Your task to perform on an android device: turn pop-ups off in chrome Image 0: 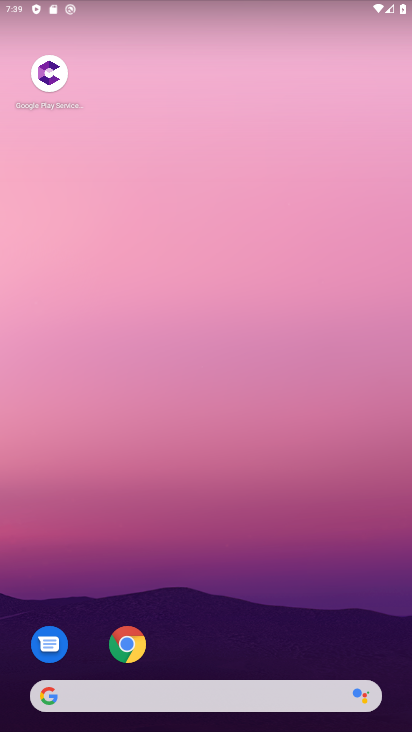
Step 0: drag from (269, 654) to (170, 145)
Your task to perform on an android device: turn pop-ups off in chrome Image 1: 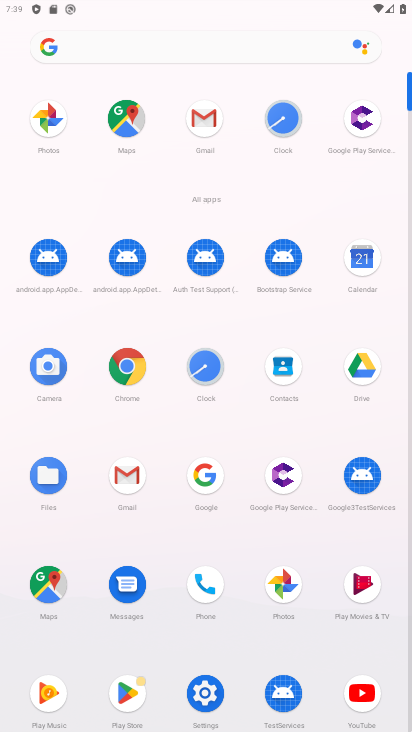
Step 1: click (124, 363)
Your task to perform on an android device: turn pop-ups off in chrome Image 2: 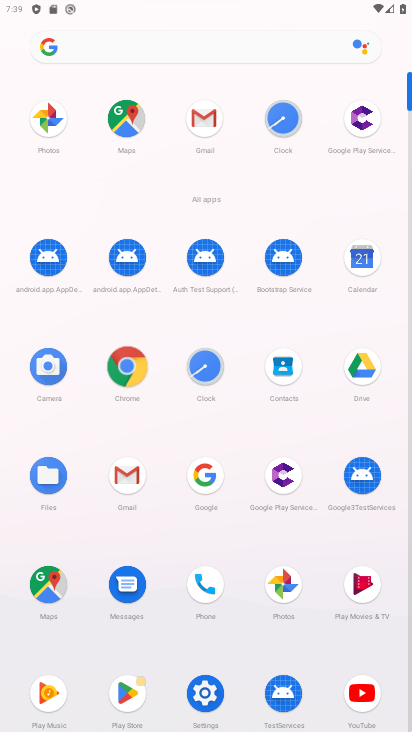
Step 2: click (125, 361)
Your task to perform on an android device: turn pop-ups off in chrome Image 3: 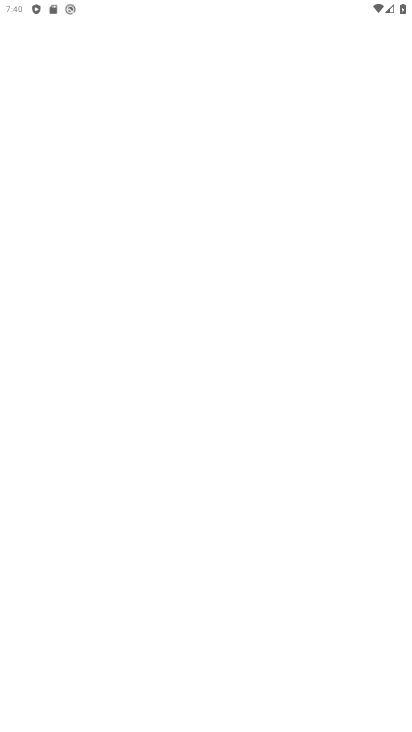
Step 3: click (132, 365)
Your task to perform on an android device: turn pop-ups off in chrome Image 4: 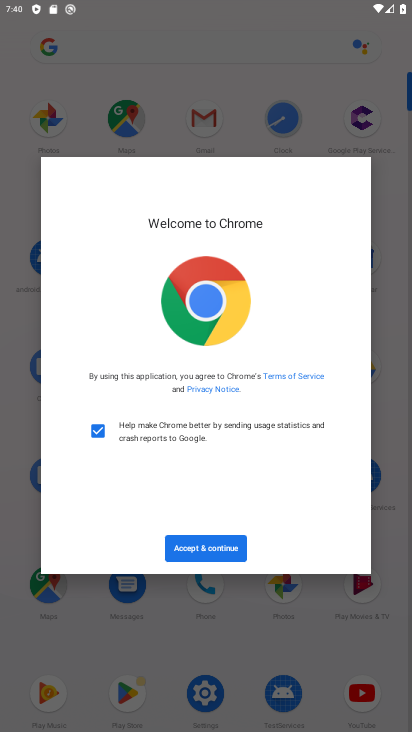
Step 4: click (206, 543)
Your task to perform on an android device: turn pop-ups off in chrome Image 5: 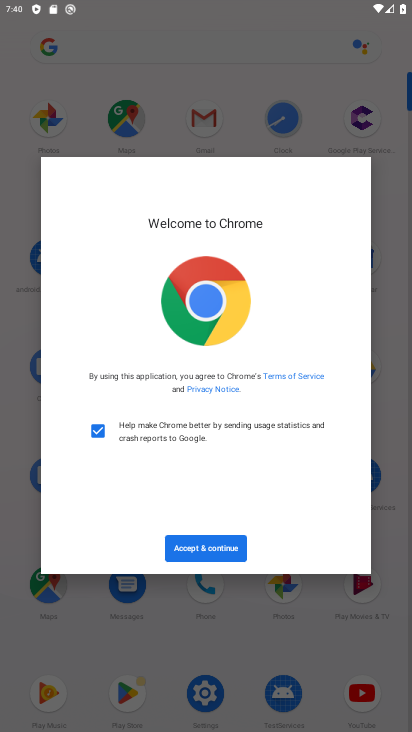
Step 5: click (218, 552)
Your task to perform on an android device: turn pop-ups off in chrome Image 6: 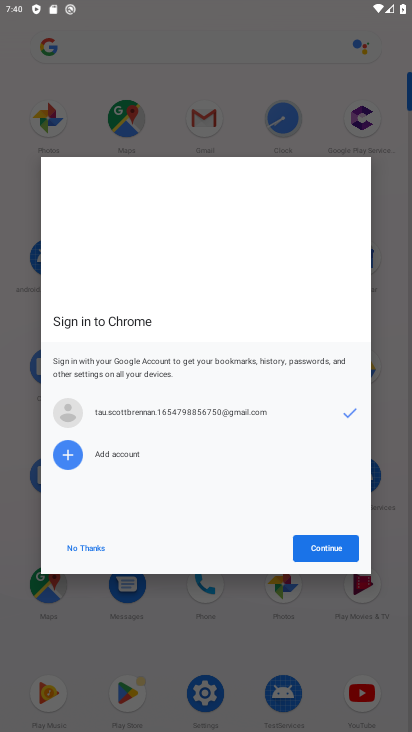
Step 6: click (221, 552)
Your task to perform on an android device: turn pop-ups off in chrome Image 7: 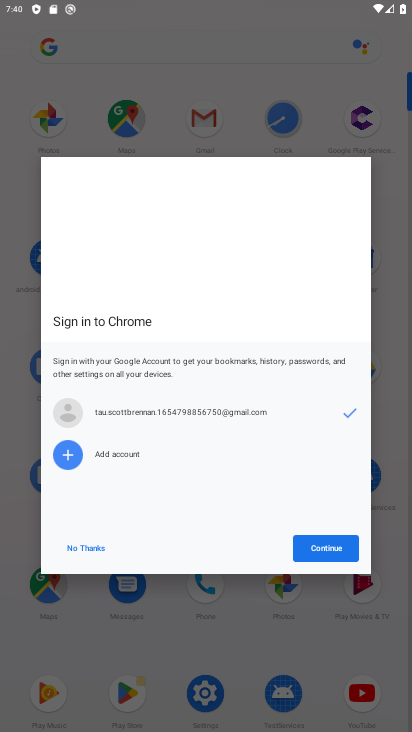
Step 7: click (221, 552)
Your task to perform on an android device: turn pop-ups off in chrome Image 8: 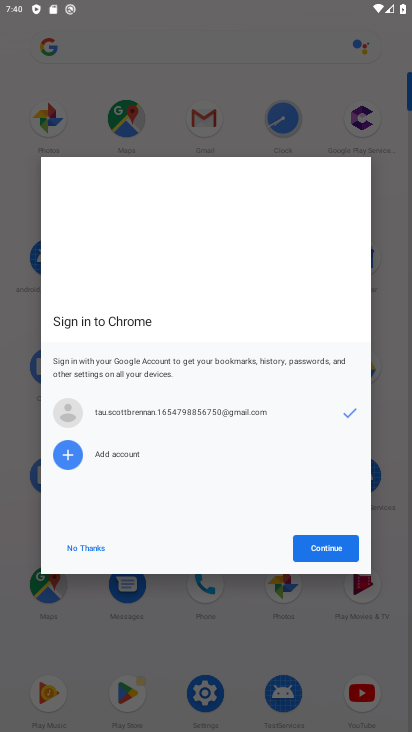
Step 8: click (86, 550)
Your task to perform on an android device: turn pop-ups off in chrome Image 9: 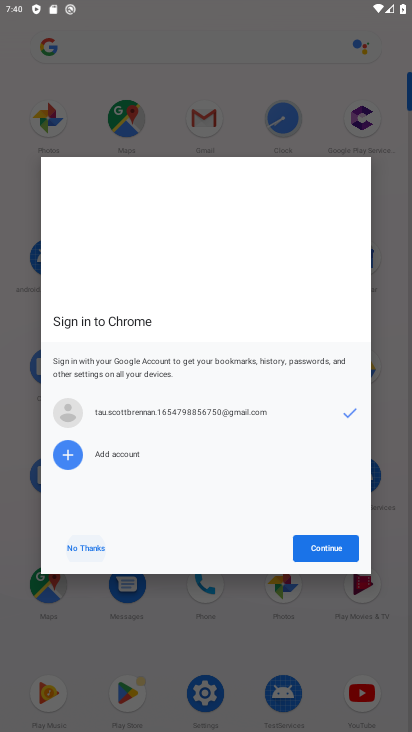
Step 9: click (83, 550)
Your task to perform on an android device: turn pop-ups off in chrome Image 10: 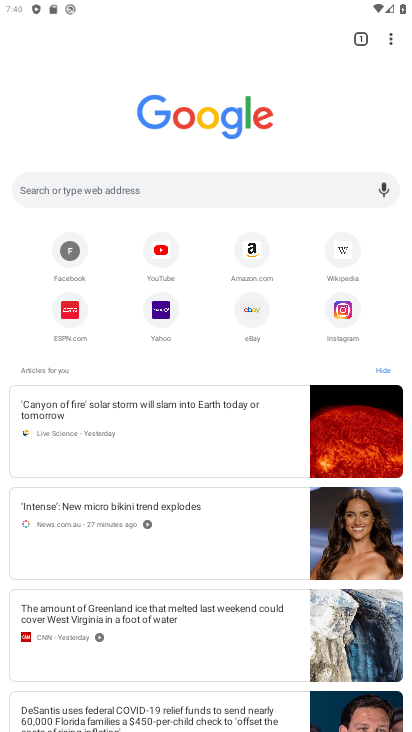
Step 10: drag from (386, 38) to (234, 326)
Your task to perform on an android device: turn pop-ups off in chrome Image 11: 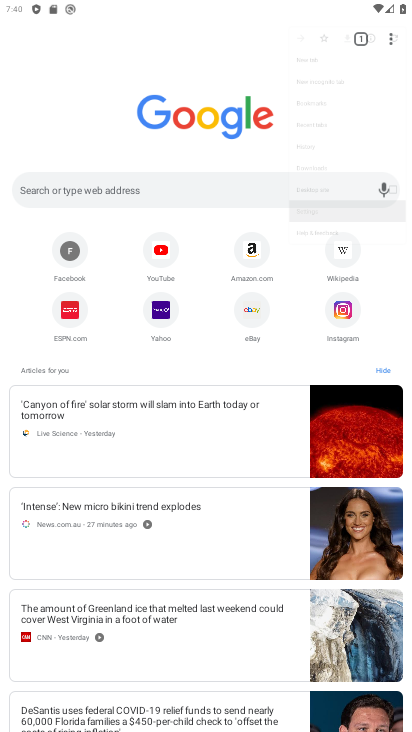
Step 11: click (236, 326)
Your task to perform on an android device: turn pop-ups off in chrome Image 12: 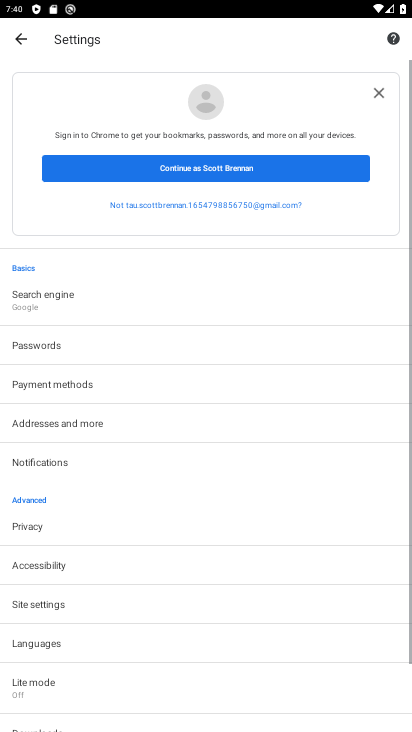
Step 12: drag from (141, 607) to (131, 188)
Your task to perform on an android device: turn pop-ups off in chrome Image 13: 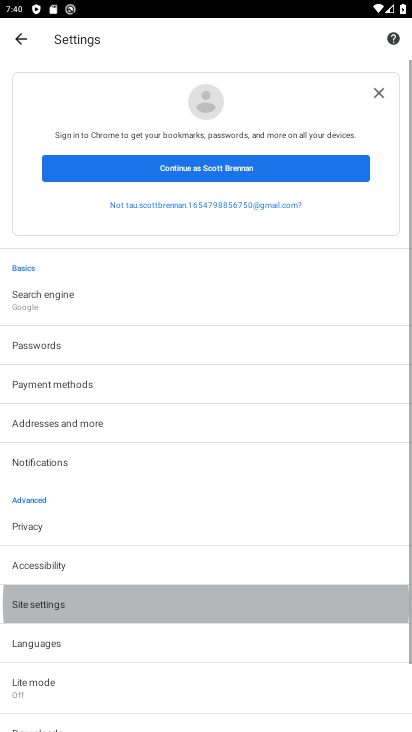
Step 13: drag from (48, 522) to (80, 239)
Your task to perform on an android device: turn pop-ups off in chrome Image 14: 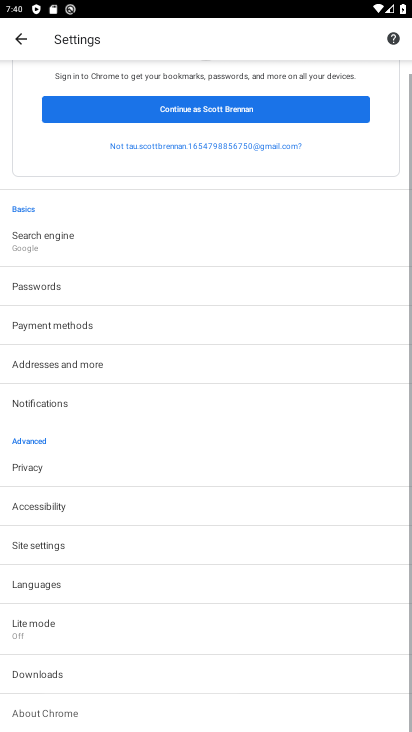
Step 14: drag from (90, 406) to (90, 229)
Your task to perform on an android device: turn pop-ups off in chrome Image 15: 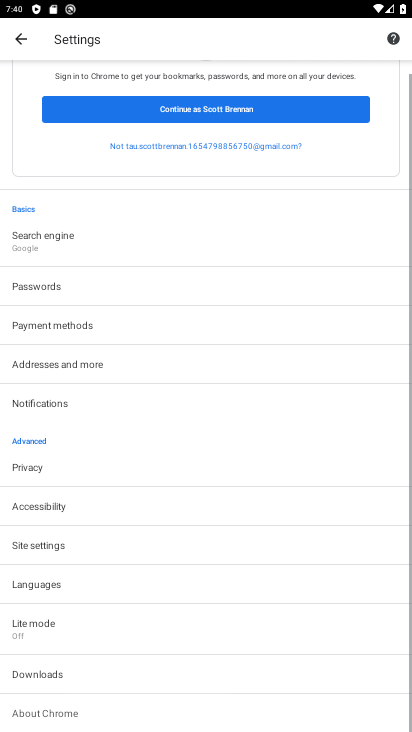
Step 15: drag from (84, 550) to (112, 250)
Your task to perform on an android device: turn pop-ups off in chrome Image 16: 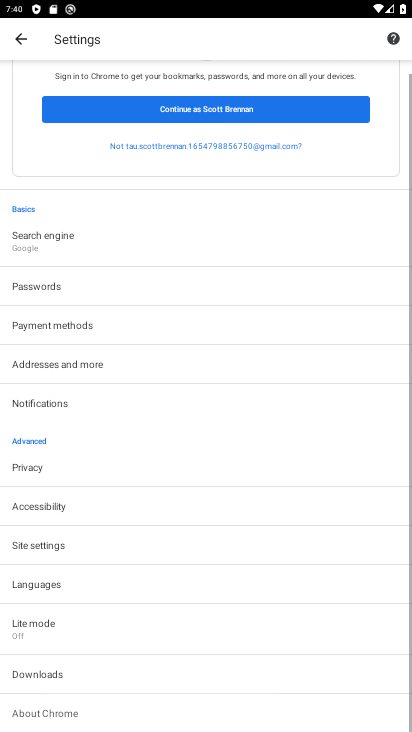
Step 16: drag from (123, 538) to (132, 269)
Your task to perform on an android device: turn pop-ups off in chrome Image 17: 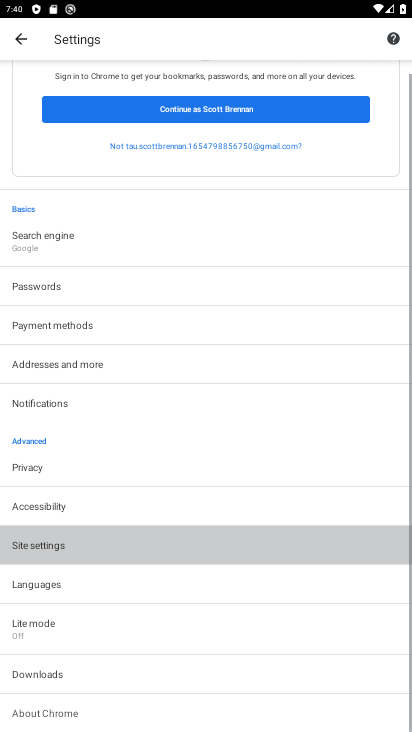
Step 17: drag from (82, 507) to (82, 268)
Your task to perform on an android device: turn pop-ups off in chrome Image 18: 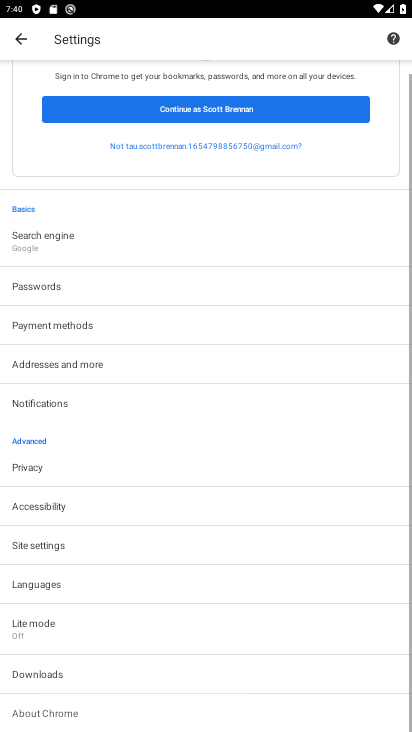
Step 18: drag from (74, 585) to (74, 304)
Your task to perform on an android device: turn pop-ups off in chrome Image 19: 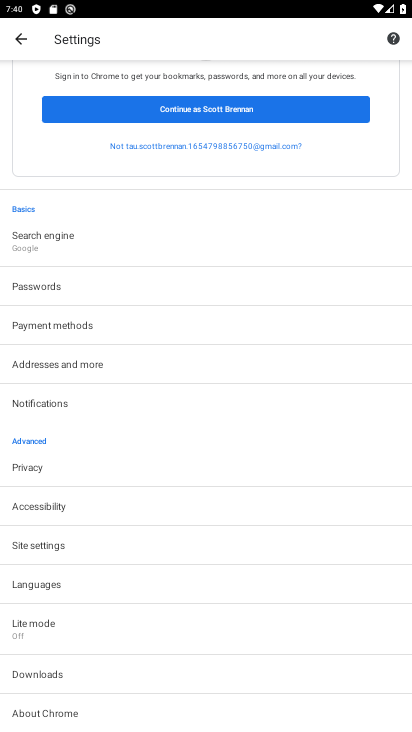
Step 19: click (33, 544)
Your task to perform on an android device: turn pop-ups off in chrome Image 20: 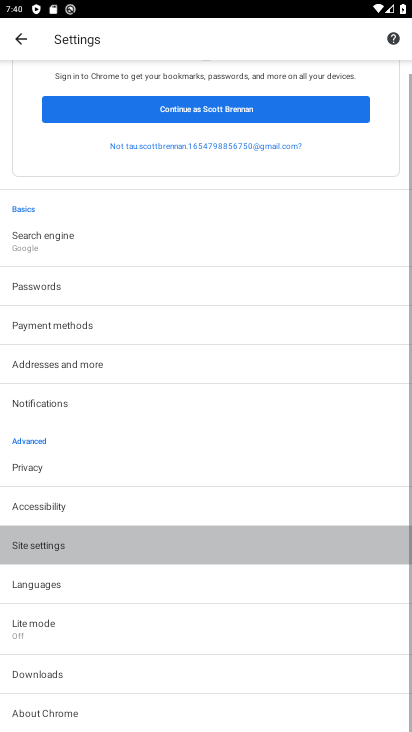
Step 20: click (34, 544)
Your task to perform on an android device: turn pop-ups off in chrome Image 21: 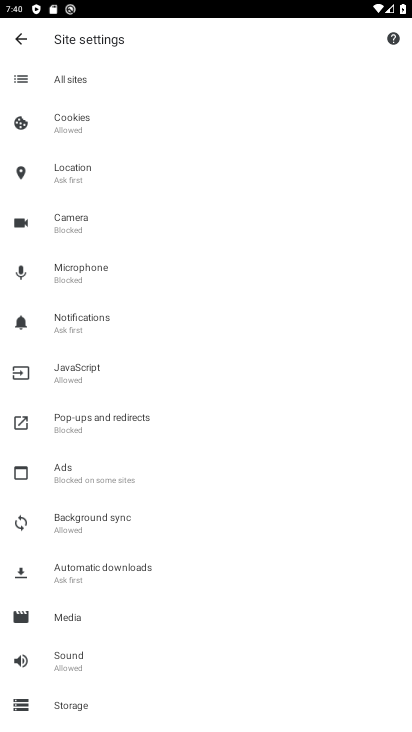
Step 21: click (78, 414)
Your task to perform on an android device: turn pop-ups off in chrome Image 22: 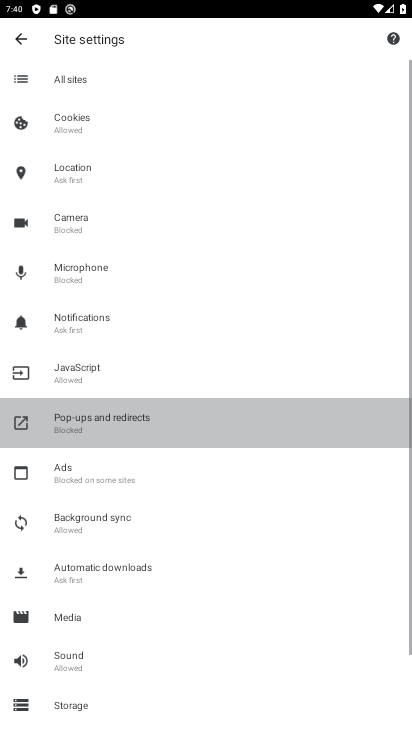
Step 22: click (80, 421)
Your task to perform on an android device: turn pop-ups off in chrome Image 23: 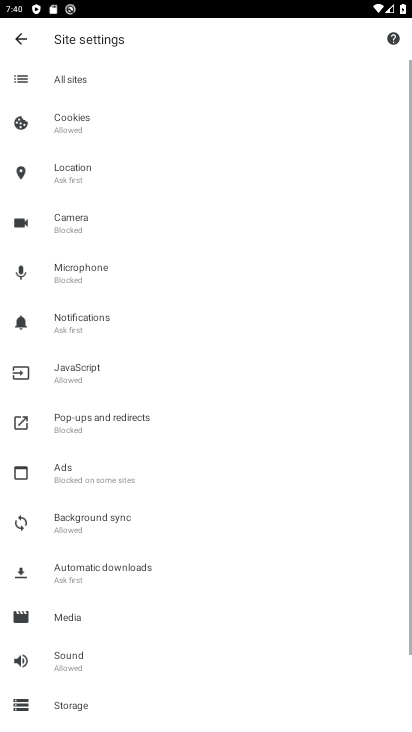
Step 23: click (81, 423)
Your task to perform on an android device: turn pop-ups off in chrome Image 24: 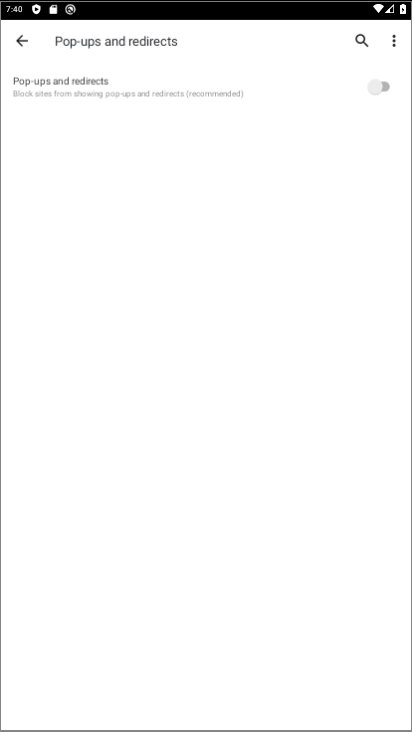
Step 24: click (81, 424)
Your task to perform on an android device: turn pop-ups off in chrome Image 25: 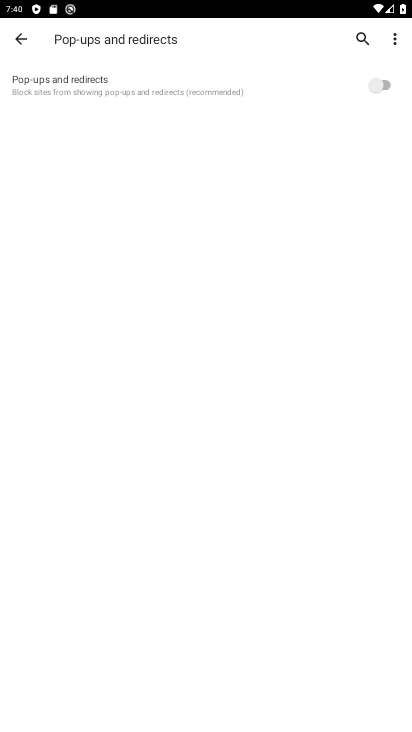
Step 25: task complete